Your task to perform on an android device: turn on notifications settings in the gmail app Image 0: 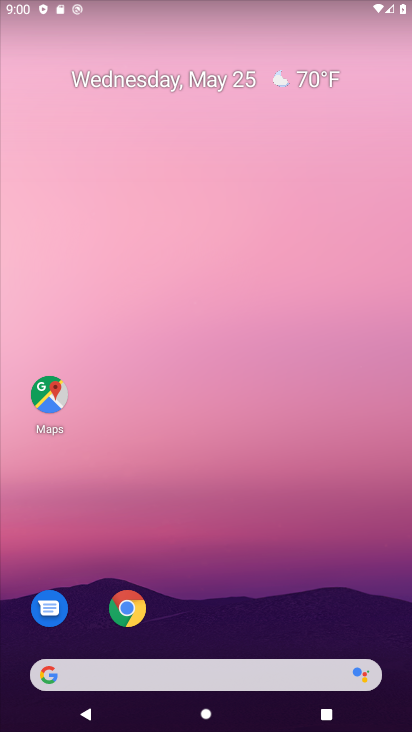
Step 0: drag from (290, 607) to (272, 28)
Your task to perform on an android device: turn on notifications settings in the gmail app Image 1: 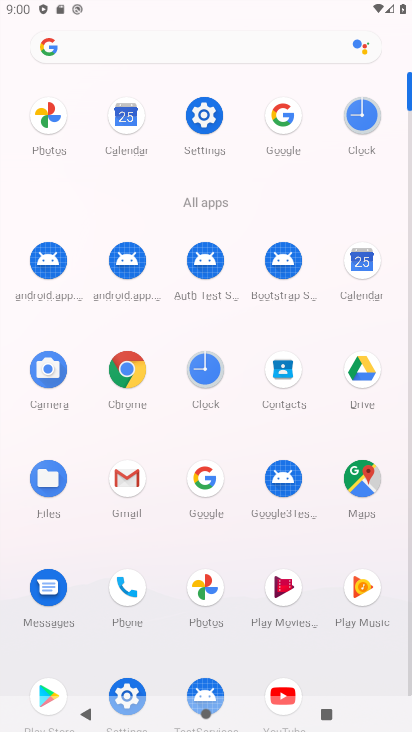
Step 1: click (132, 487)
Your task to perform on an android device: turn on notifications settings in the gmail app Image 2: 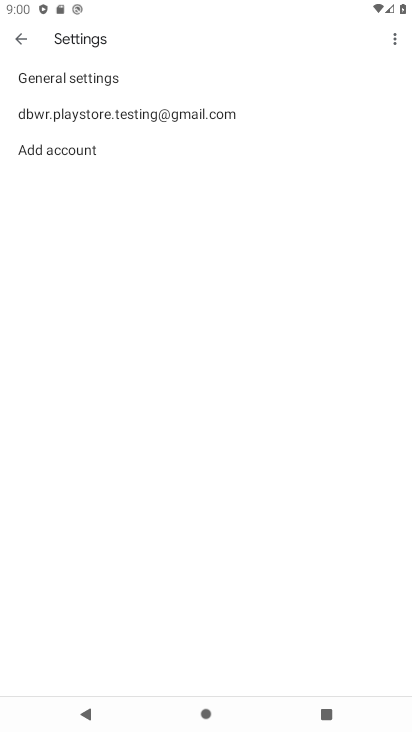
Step 2: click (98, 118)
Your task to perform on an android device: turn on notifications settings in the gmail app Image 3: 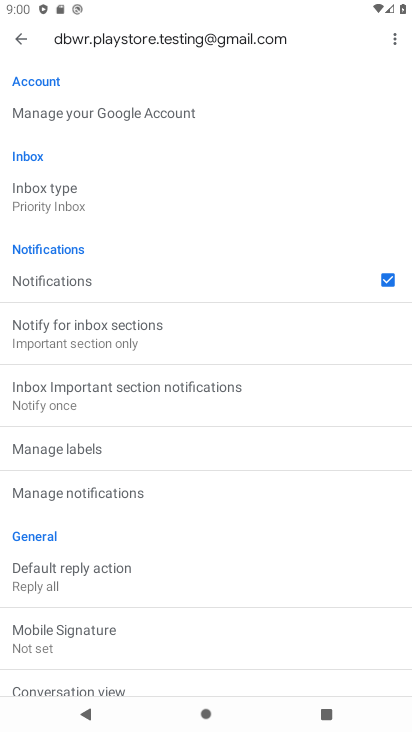
Step 3: click (139, 284)
Your task to perform on an android device: turn on notifications settings in the gmail app Image 4: 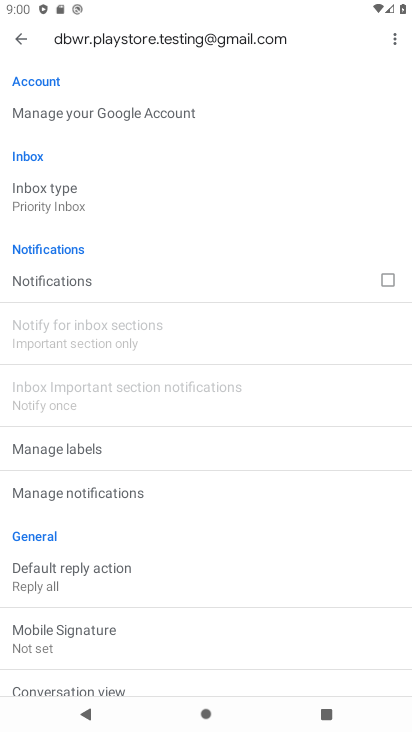
Step 4: click (105, 504)
Your task to perform on an android device: turn on notifications settings in the gmail app Image 5: 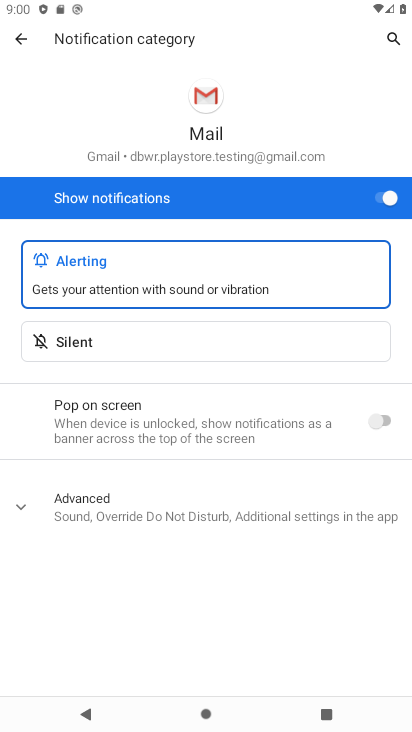
Step 5: task complete